Your task to perform on an android device: set the timer Image 0: 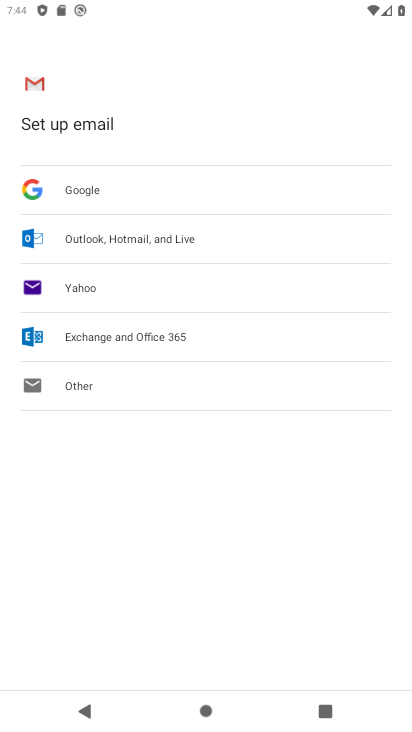
Step 0: press home button
Your task to perform on an android device: set the timer Image 1: 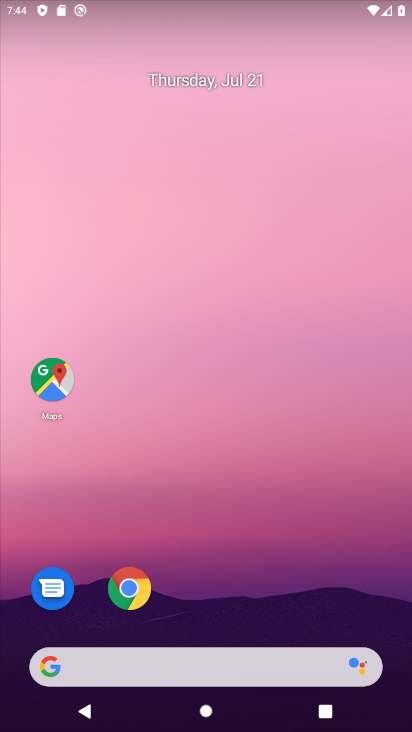
Step 1: drag from (203, 504) to (202, 154)
Your task to perform on an android device: set the timer Image 2: 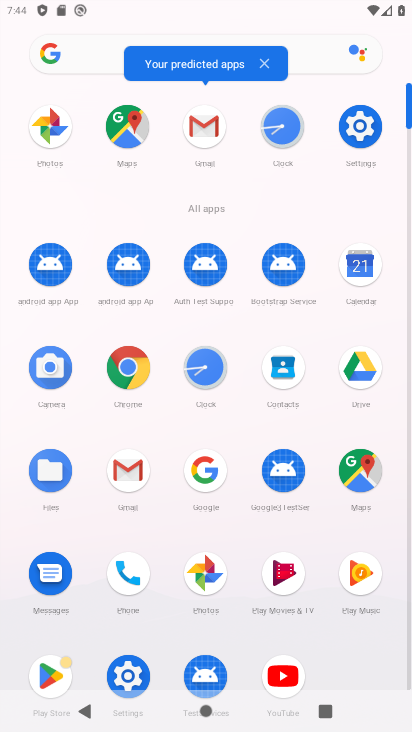
Step 2: click (279, 131)
Your task to perform on an android device: set the timer Image 3: 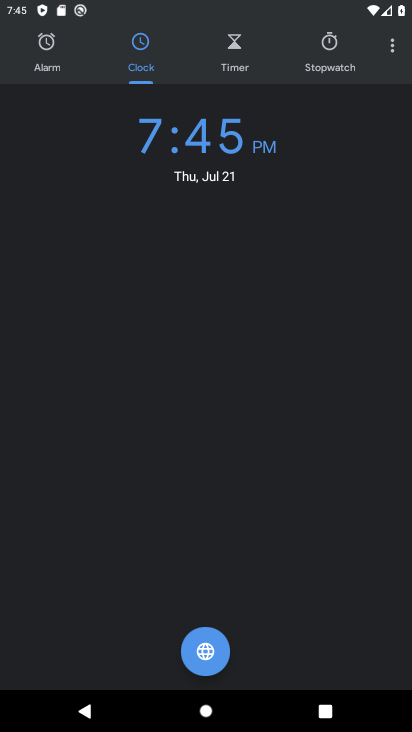
Step 3: click (240, 43)
Your task to perform on an android device: set the timer Image 4: 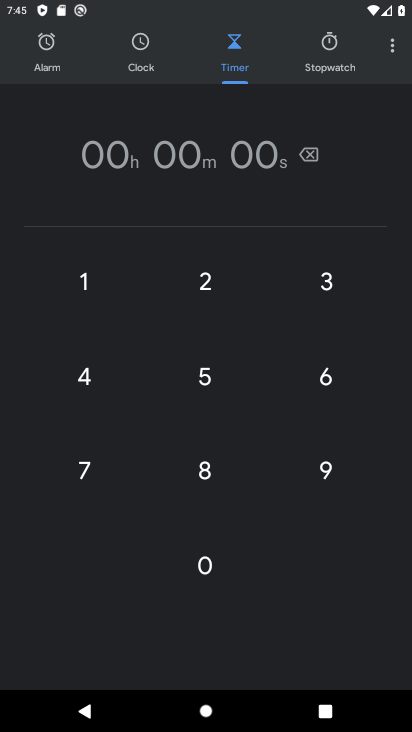
Step 4: click (83, 281)
Your task to perform on an android device: set the timer Image 5: 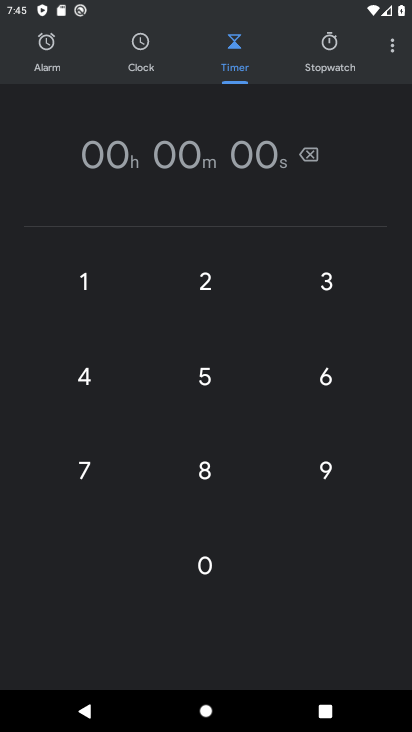
Step 5: click (83, 281)
Your task to perform on an android device: set the timer Image 6: 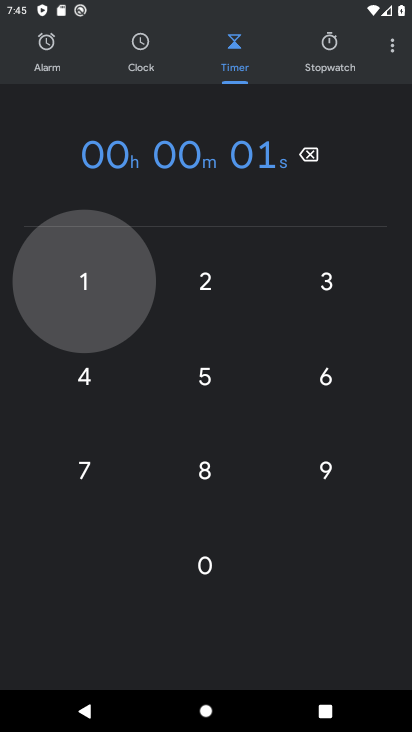
Step 6: click (83, 281)
Your task to perform on an android device: set the timer Image 7: 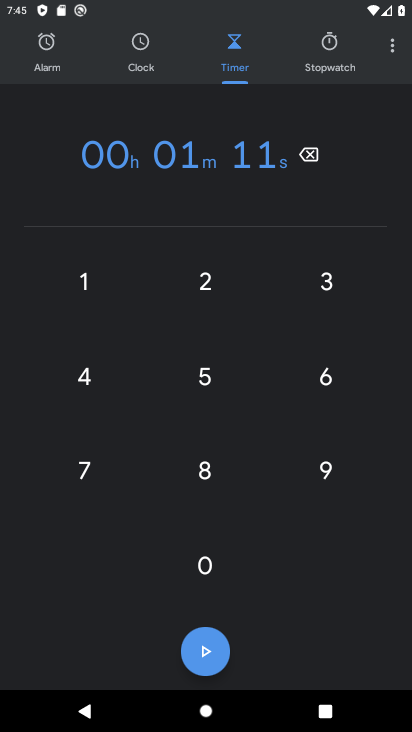
Step 7: click (83, 281)
Your task to perform on an android device: set the timer Image 8: 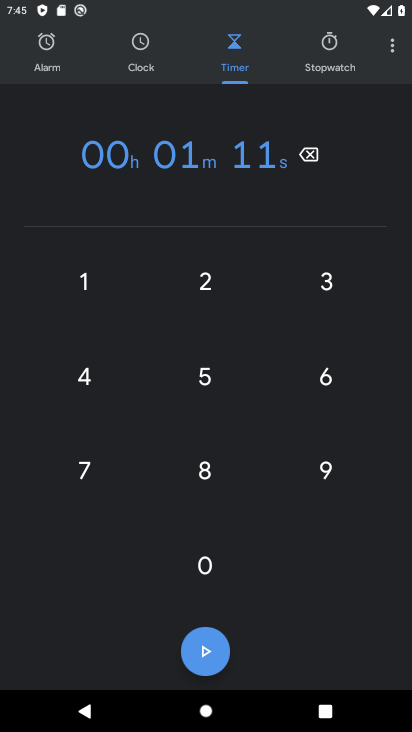
Step 8: click (83, 281)
Your task to perform on an android device: set the timer Image 9: 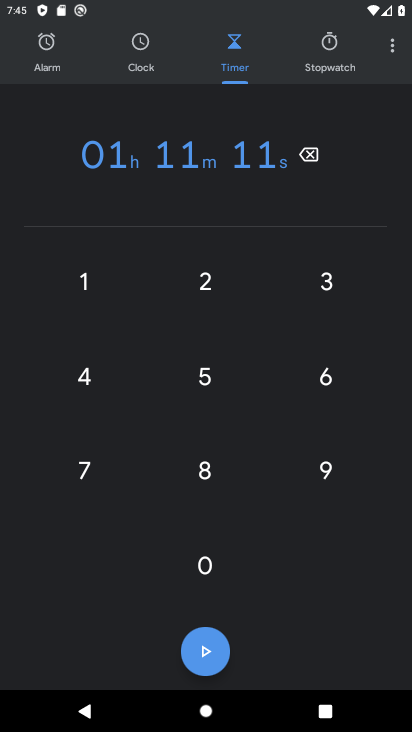
Step 9: click (83, 281)
Your task to perform on an android device: set the timer Image 10: 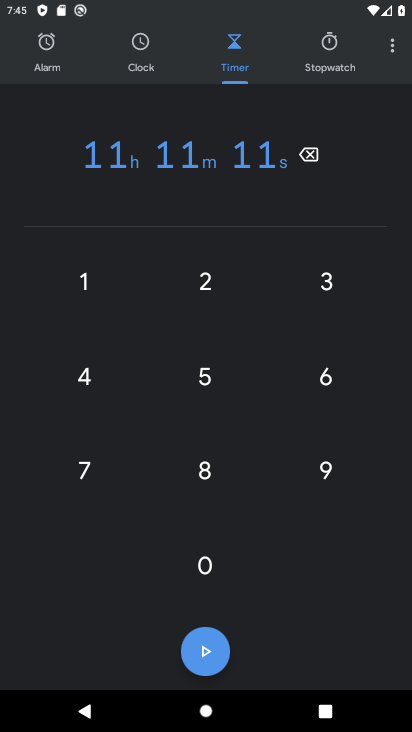
Step 10: task complete